Your task to perform on an android device: When is my next appointment? Image 0: 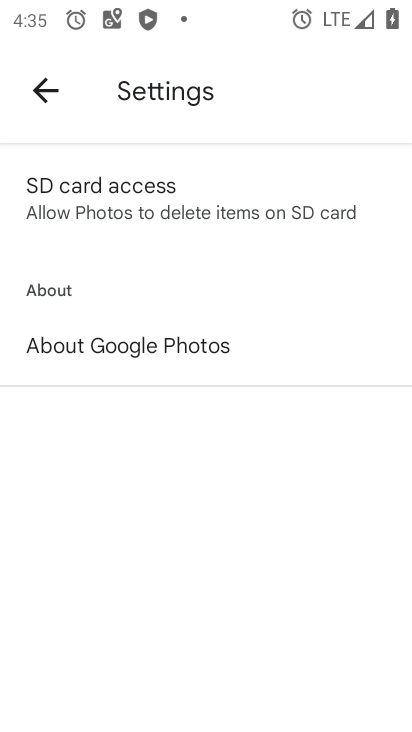
Step 0: press home button
Your task to perform on an android device: When is my next appointment? Image 1: 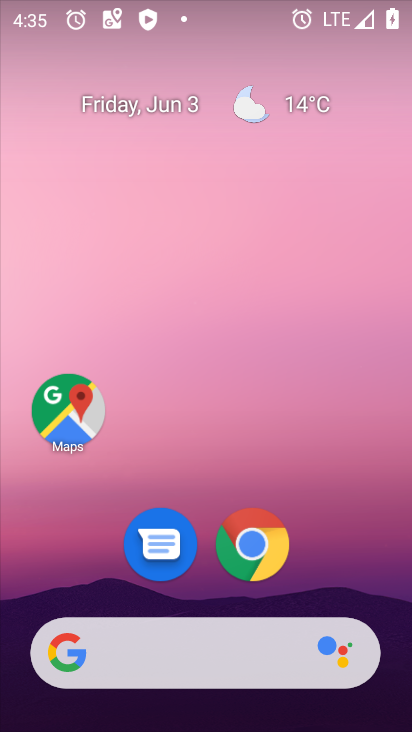
Step 1: drag from (396, 626) to (341, 23)
Your task to perform on an android device: When is my next appointment? Image 2: 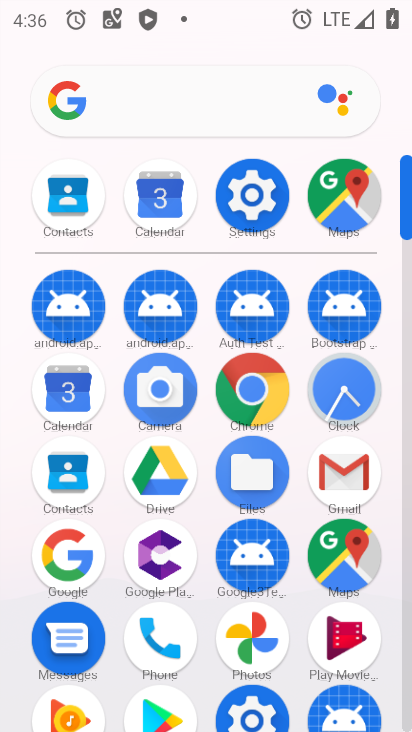
Step 2: click (406, 649)
Your task to perform on an android device: When is my next appointment? Image 3: 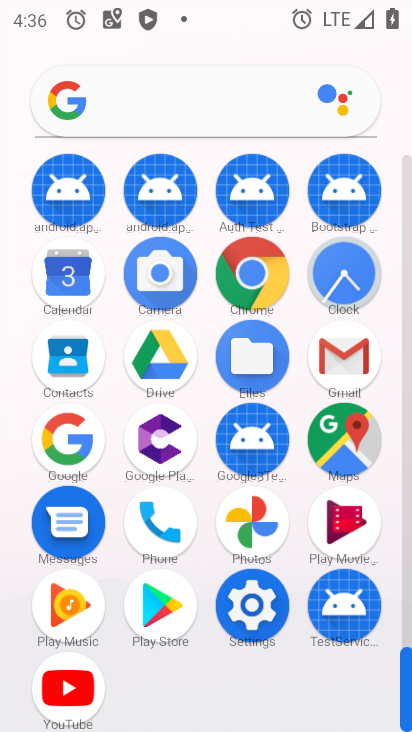
Step 3: click (63, 269)
Your task to perform on an android device: When is my next appointment? Image 4: 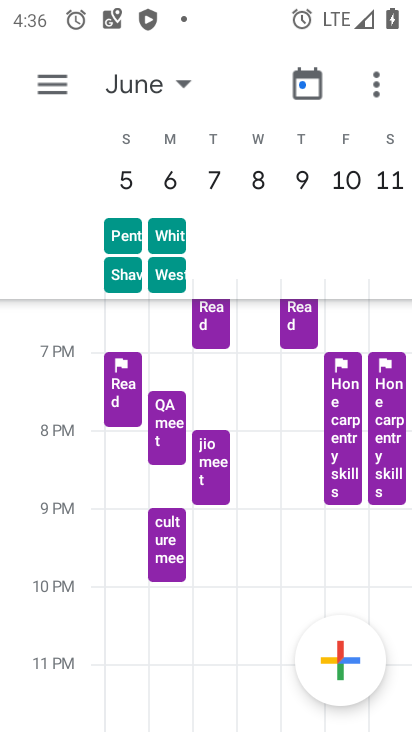
Step 4: click (57, 89)
Your task to perform on an android device: When is my next appointment? Image 5: 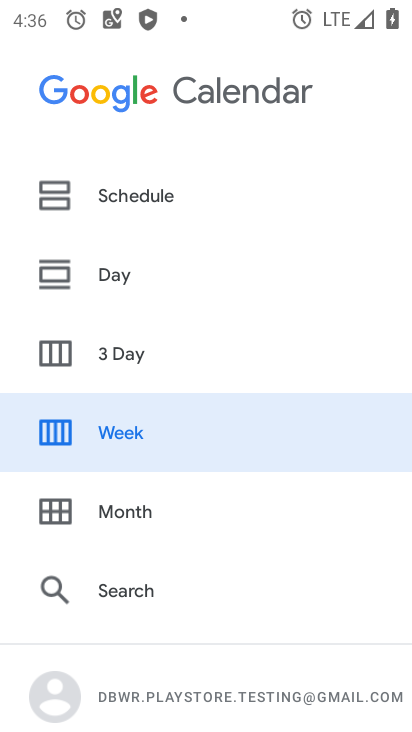
Step 5: click (126, 203)
Your task to perform on an android device: When is my next appointment? Image 6: 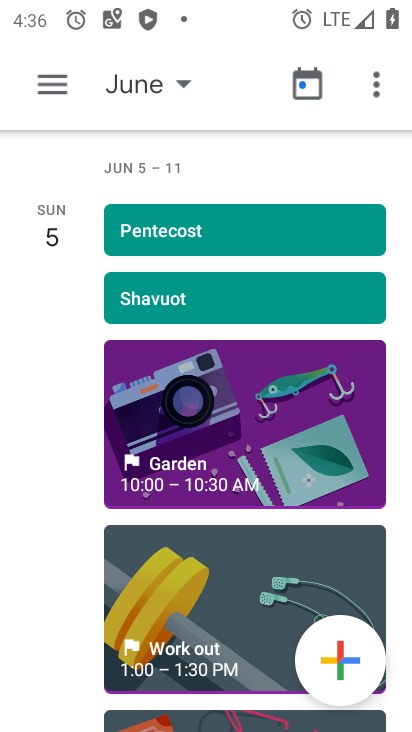
Step 6: task complete